Your task to perform on an android device: Search for pizza restaurants on Maps Image 0: 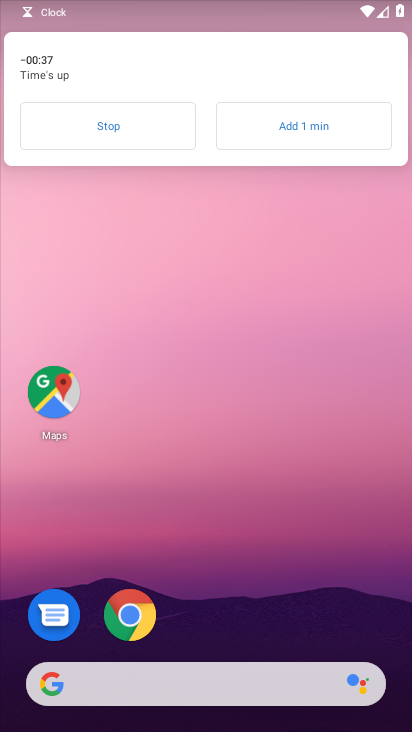
Step 0: drag from (214, 725) to (197, 266)
Your task to perform on an android device: Search for pizza restaurants on Maps Image 1: 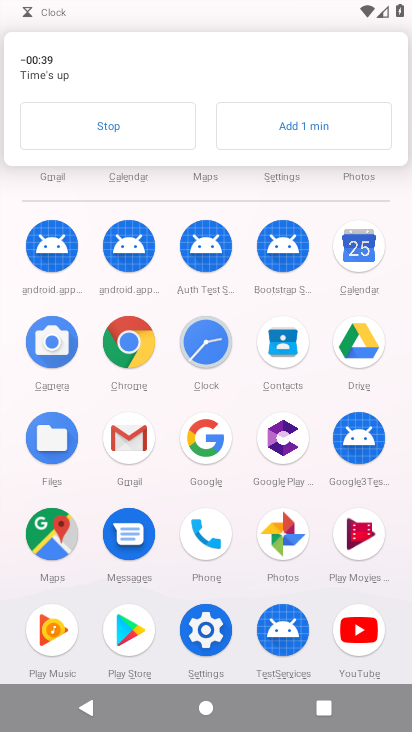
Step 1: click (117, 126)
Your task to perform on an android device: Search for pizza restaurants on Maps Image 2: 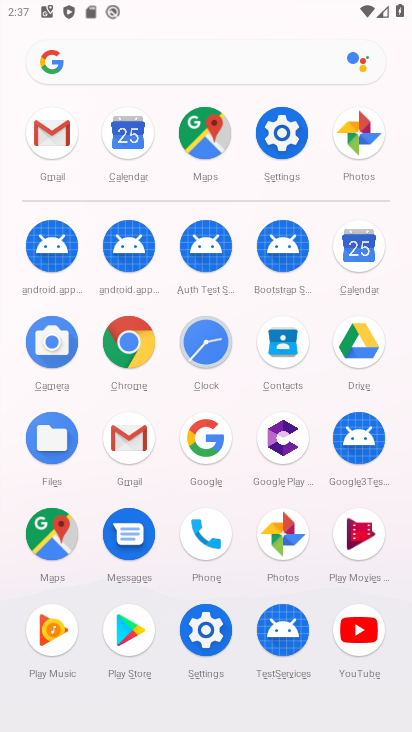
Step 2: click (52, 533)
Your task to perform on an android device: Search for pizza restaurants on Maps Image 3: 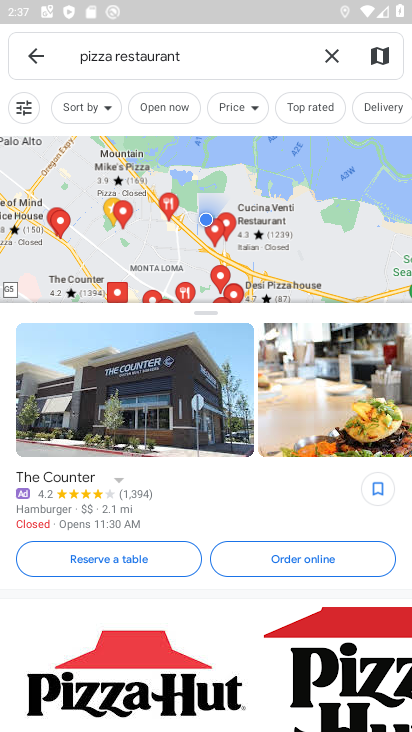
Step 3: task complete